Your task to perform on an android device: Go to wifi settings Image 0: 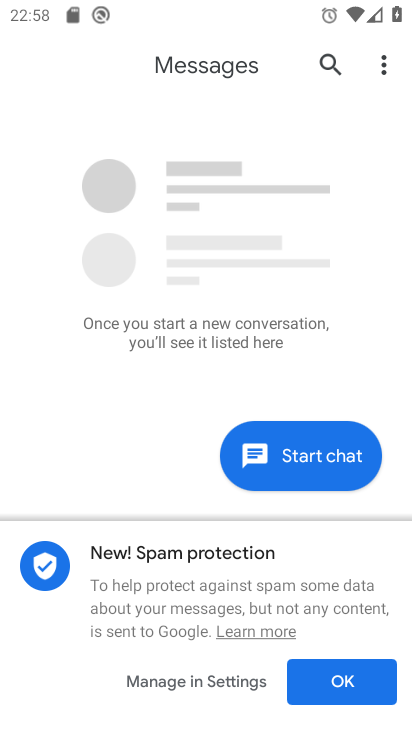
Step 0: press home button
Your task to perform on an android device: Go to wifi settings Image 1: 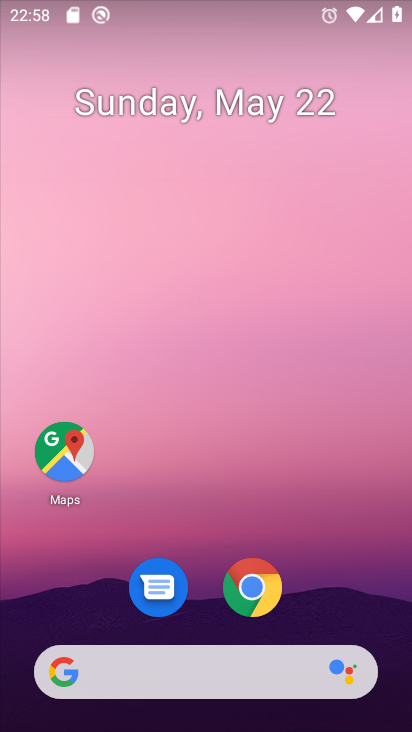
Step 1: drag from (228, 481) to (244, 13)
Your task to perform on an android device: Go to wifi settings Image 2: 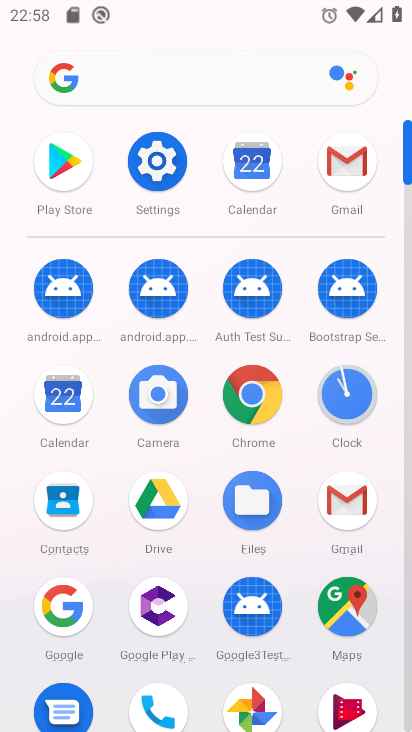
Step 2: click (159, 152)
Your task to perform on an android device: Go to wifi settings Image 3: 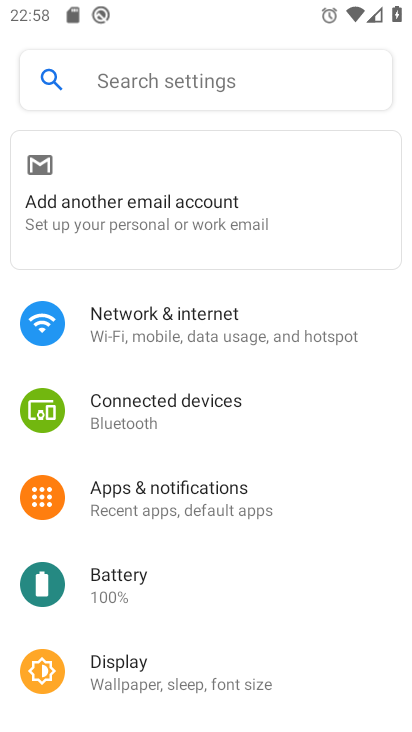
Step 3: click (178, 323)
Your task to perform on an android device: Go to wifi settings Image 4: 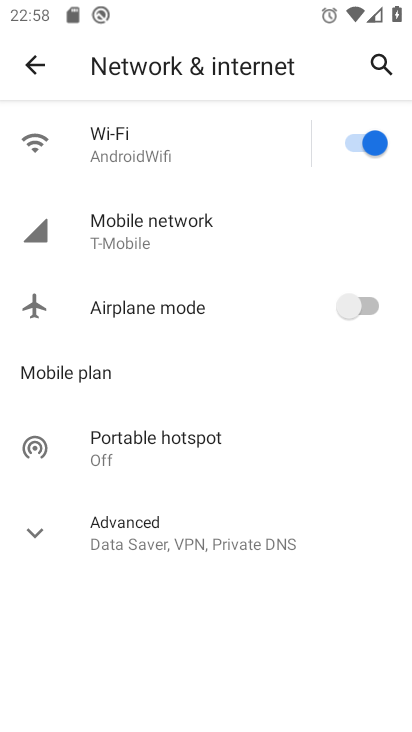
Step 4: click (141, 141)
Your task to perform on an android device: Go to wifi settings Image 5: 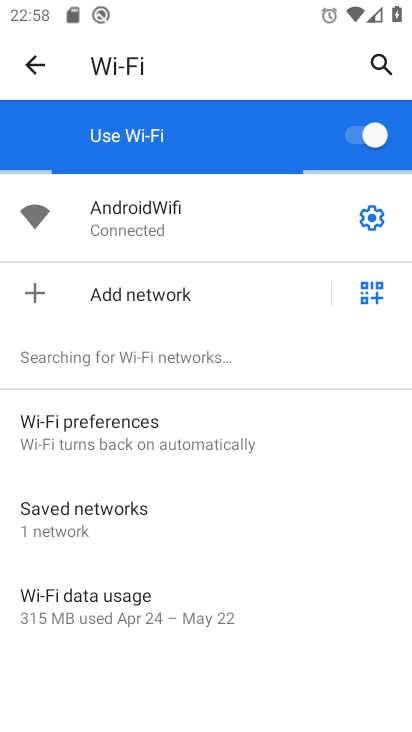
Step 5: task complete